Your task to perform on an android device: Open my contact list Image 0: 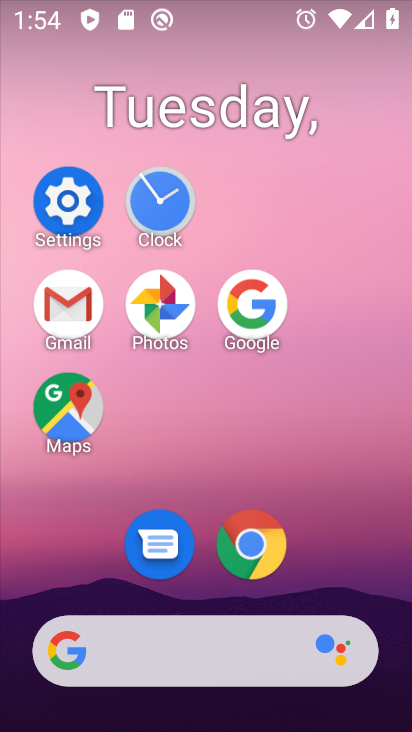
Step 0: drag from (362, 572) to (286, 171)
Your task to perform on an android device: Open my contact list Image 1: 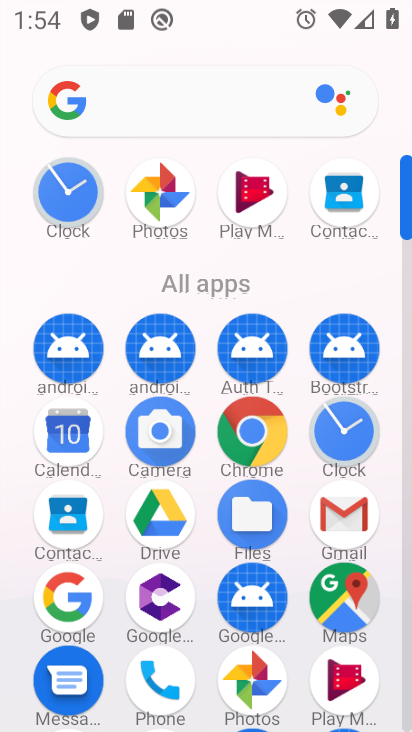
Step 1: drag from (215, 604) to (274, 310)
Your task to perform on an android device: Open my contact list Image 2: 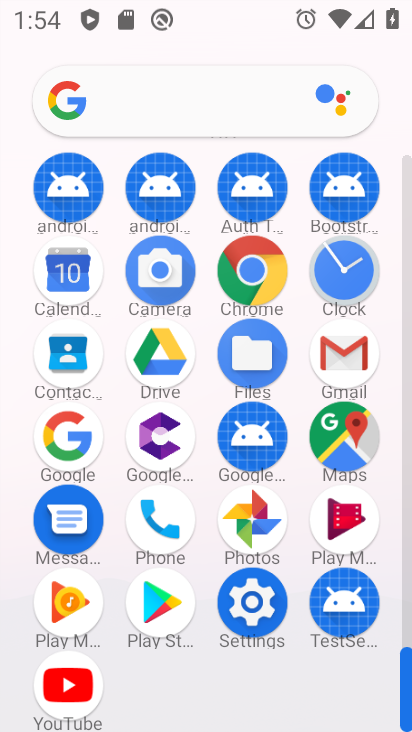
Step 2: drag from (225, 255) to (223, 611)
Your task to perform on an android device: Open my contact list Image 3: 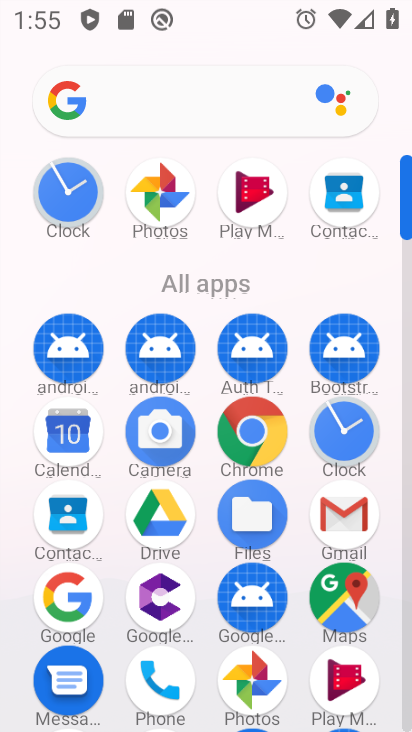
Step 3: drag from (337, 202) to (211, 196)
Your task to perform on an android device: Open my contact list Image 4: 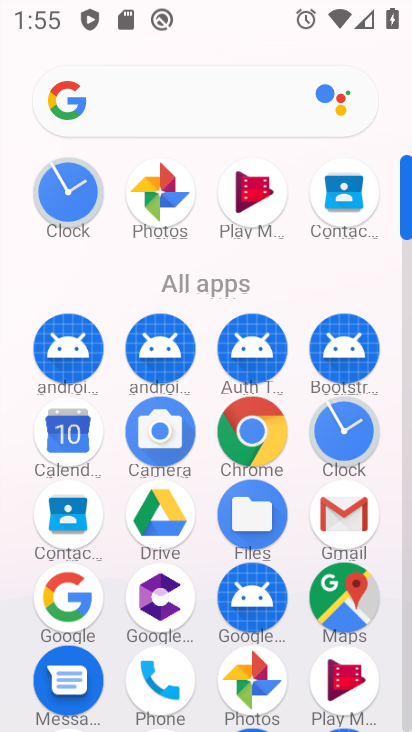
Step 4: drag from (333, 197) to (246, 235)
Your task to perform on an android device: Open my contact list Image 5: 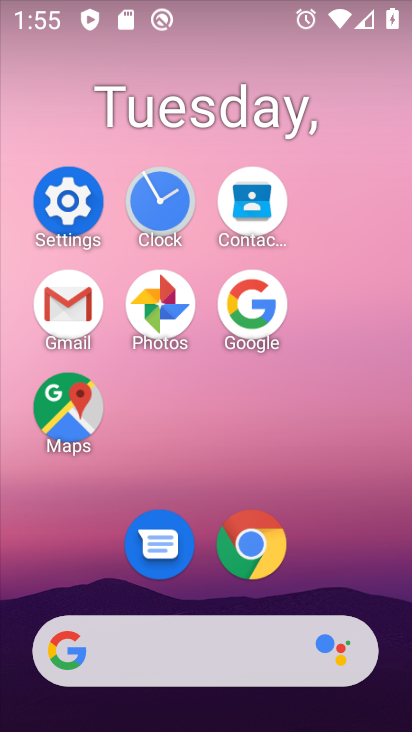
Step 5: click (251, 200)
Your task to perform on an android device: Open my contact list Image 6: 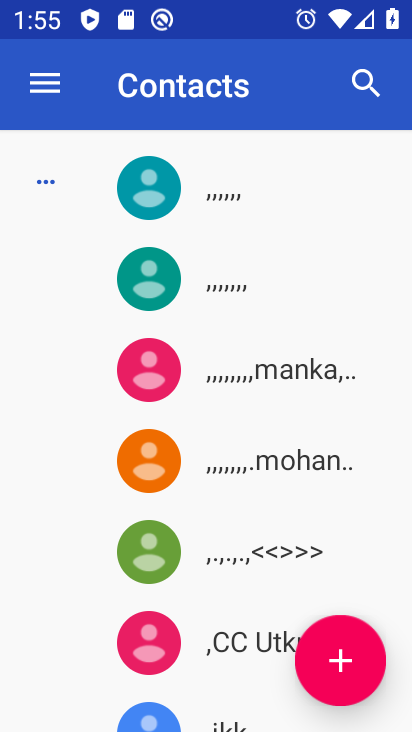
Step 6: task complete